Your task to perform on an android device: change your default location settings in chrome Image 0: 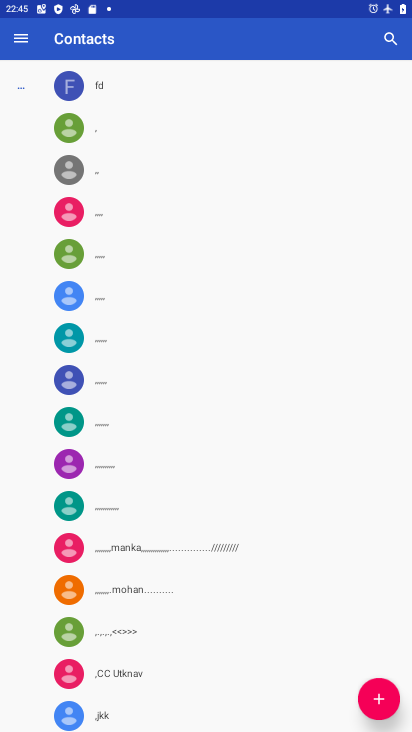
Step 0: press home button
Your task to perform on an android device: change your default location settings in chrome Image 1: 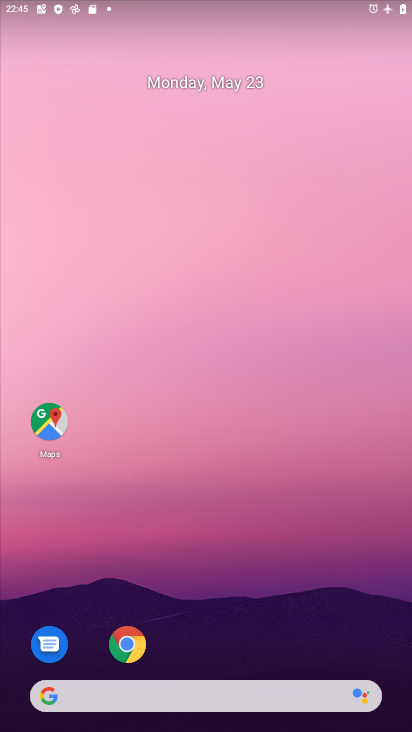
Step 1: click (134, 640)
Your task to perform on an android device: change your default location settings in chrome Image 2: 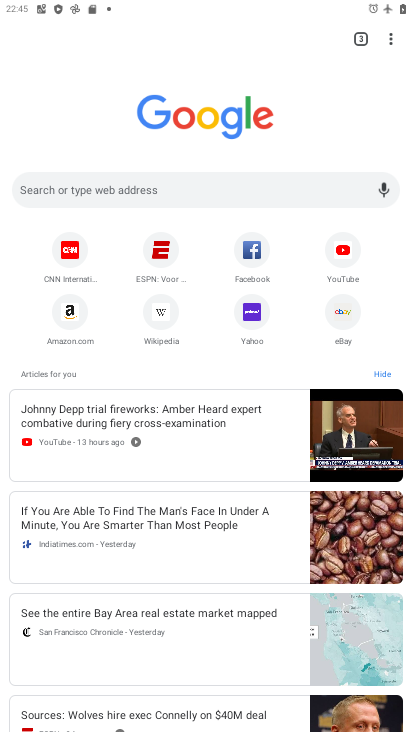
Step 2: click (388, 38)
Your task to perform on an android device: change your default location settings in chrome Image 3: 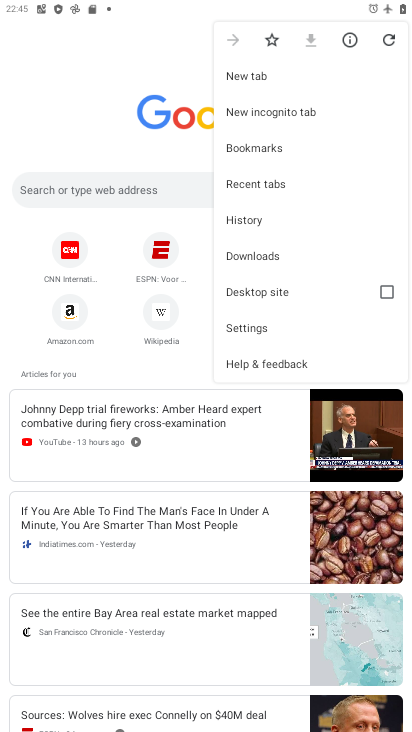
Step 3: click (247, 330)
Your task to perform on an android device: change your default location settings in chrome Image 4: 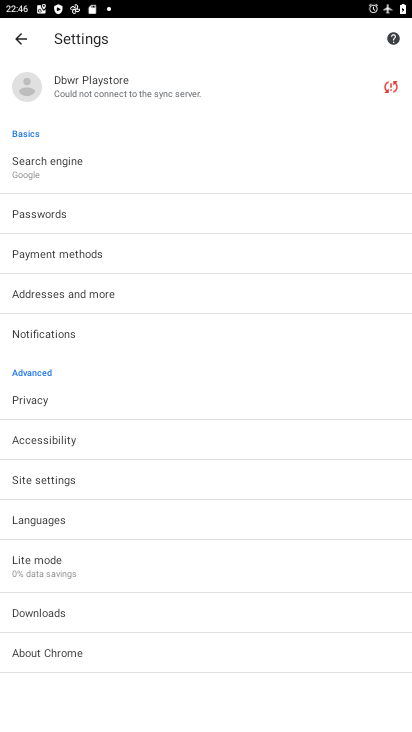
Step 4: click (53, 487)
Your task to perform on an android device: change your default location settings in chrome Image 5: 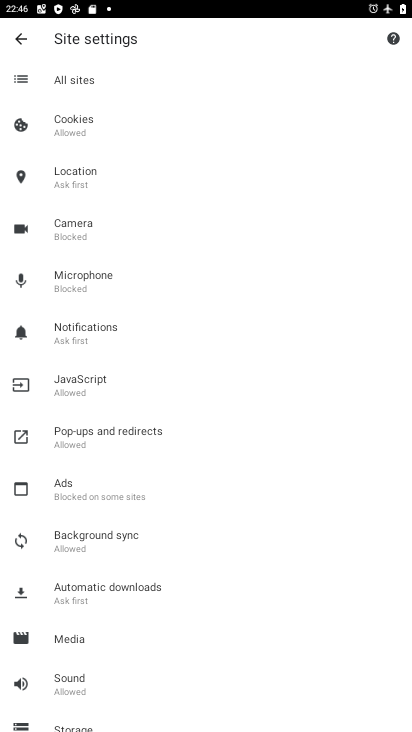
Step 5: drag from (129, 628) to (137, 149)
Your task to perform on an android device: change your default location settings in chrome Image 6: 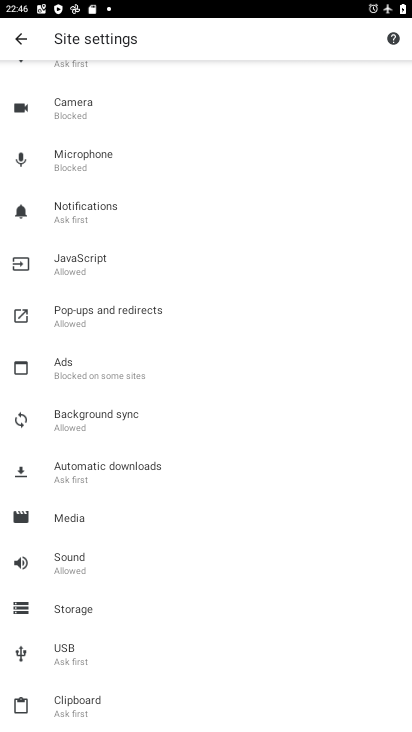
Step 6: drag from (207, 235) to (159, 604)
Your task to perform on an android device: change your default location settings in chrome Image 7: 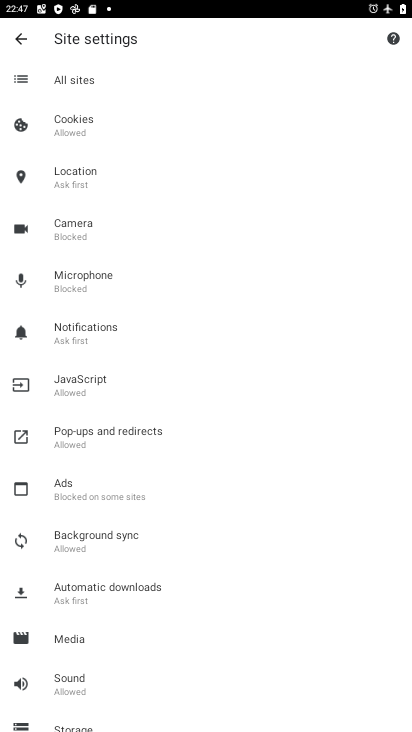
Step 7: drag from (224, 610) to (300, 43)
Your task to perform on an android device: change your default location settings in chrome Image 8: 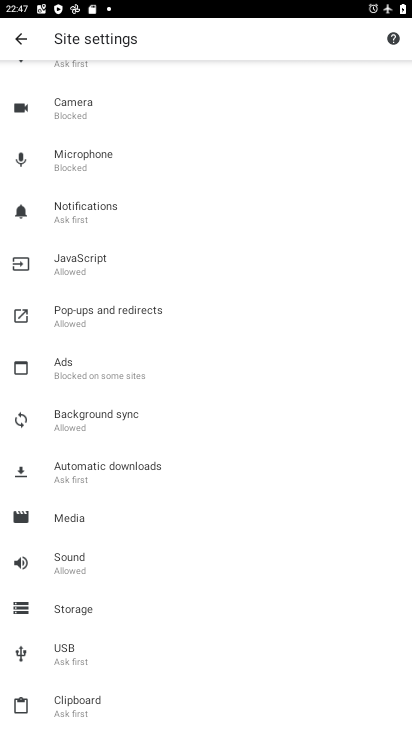
Step 8: drag from (255, 235) to (202, 667)
Your task to perform on an android device: change your default location settings in chrome Image 9: 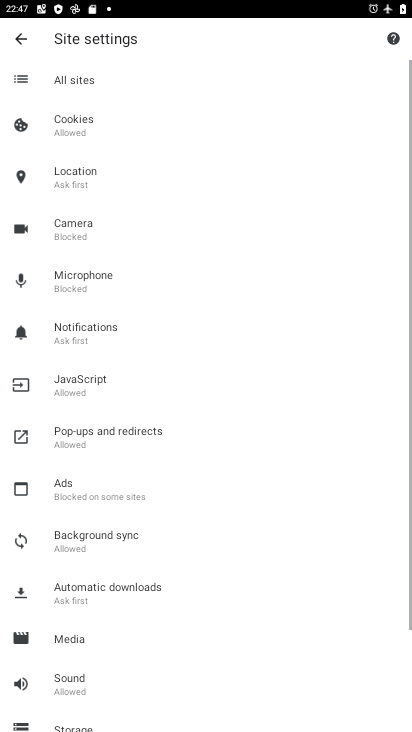
Step 9: drag from (250, 680) to (262, 234)
Your task to perform on an android device: change your default location settings in chrome Image 10: 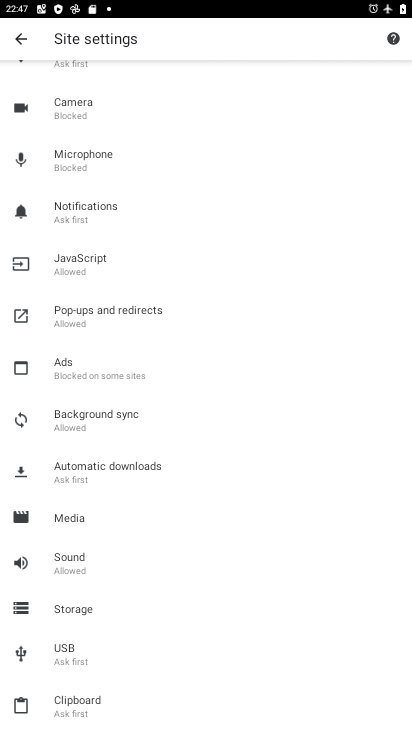
Step 10: drag from (156, 648) to (211, 146)
Your task to perform on an android device: change your default location settings in chrome Image 11: 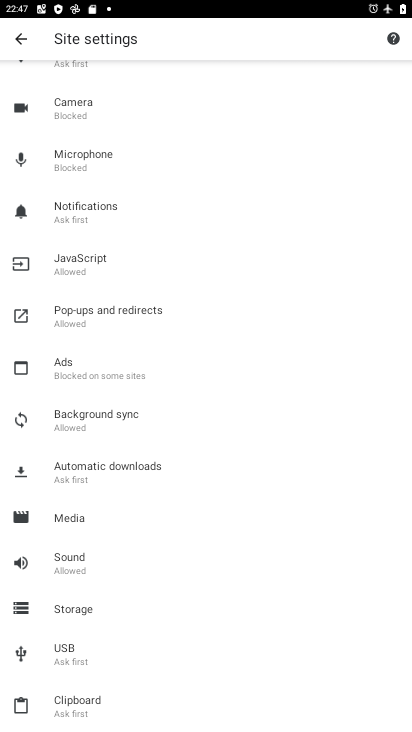
Step 11: drag from (124, 663) to (217, 54)
Your task to perform on an android device: change your default location settings in chrome Image 12: 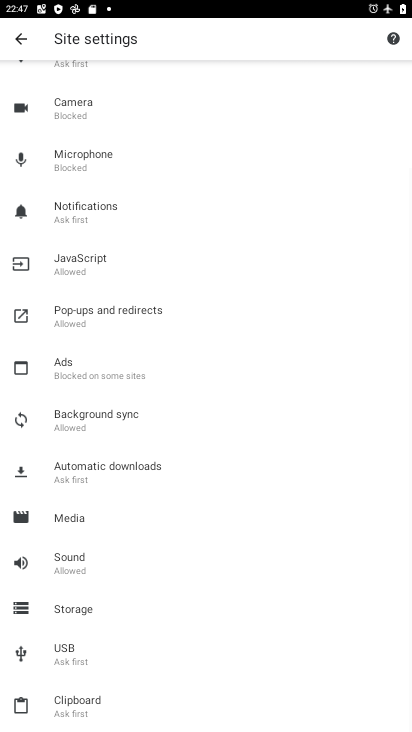
Step 12: drag from (130, 711) to (251, 60)
Your task to perform on an android device: change your default location settings in chrome Image 13: 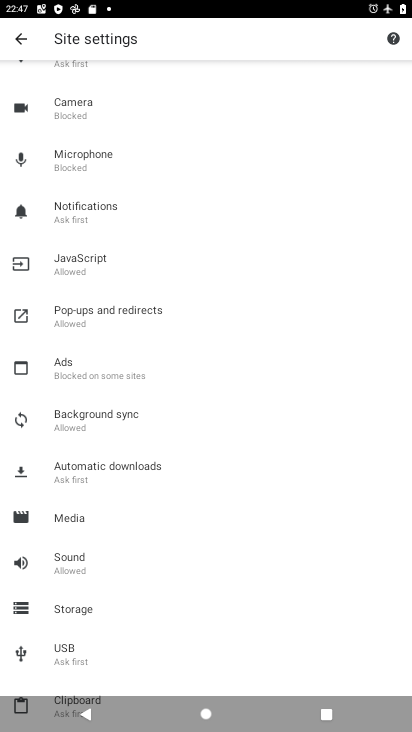
Step 13: drag from (251, 144) to (165, 664)
Your task to perform on an android device: change your default location settings in chrome Image 14: 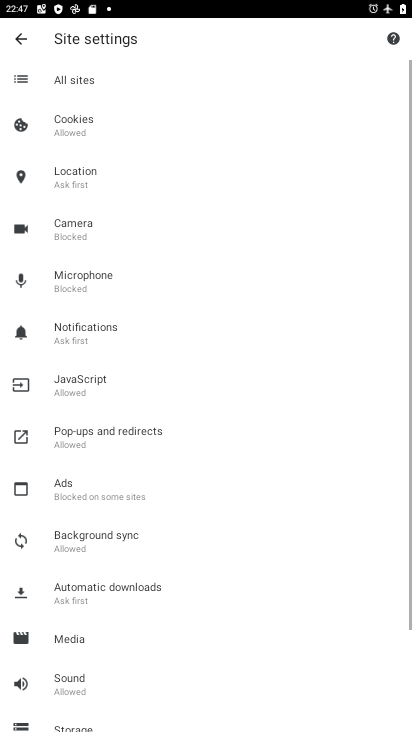
Step 14: drag from (282, 126) to (334, 721)
Your task to perform on an android device: change your default location settings in chrome Image 15: 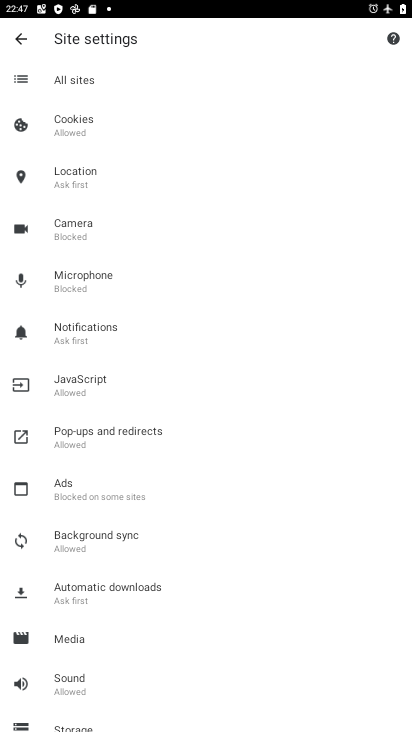
Step 15: click (131, 182)
Your task to perform on an android device: change your default location settings in chrome Image 16: 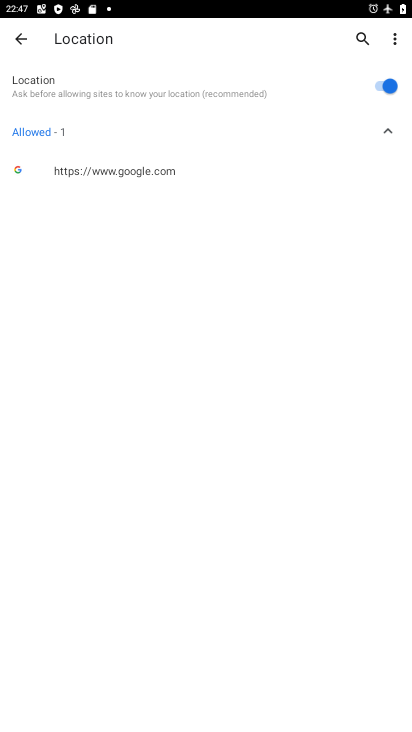
Step 16: click (390, 91)
Your task to perform on an android device: change your default location settings in chrome Image 17: 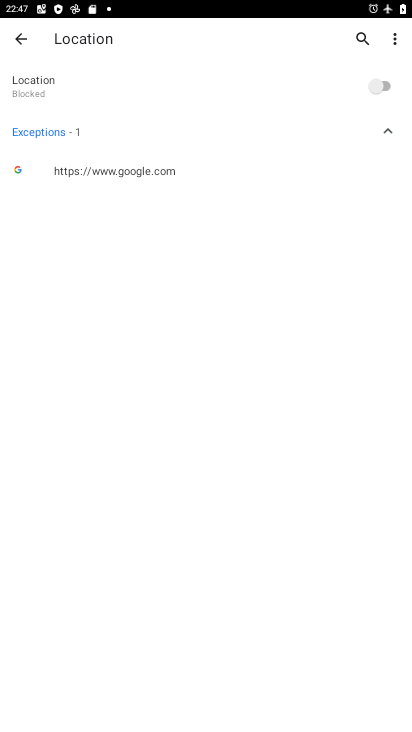
Step 17: task complete